Your task to perform on an android device: change keyboard looks Image 0: 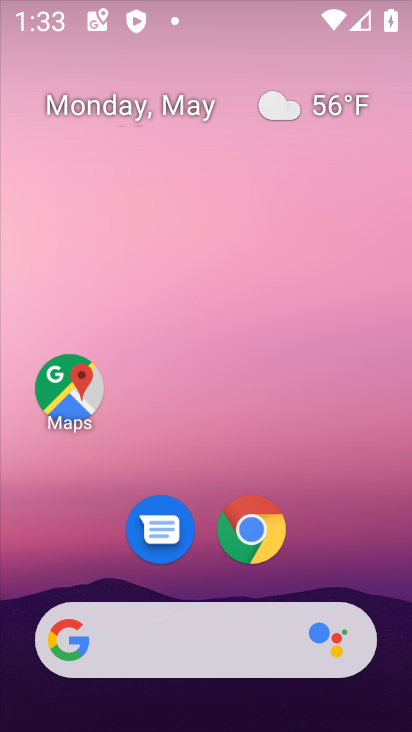
Step 0: drag from (328, 534) to (332, 10)
Your task to perform on an android device: change keyboard looks Image 1: 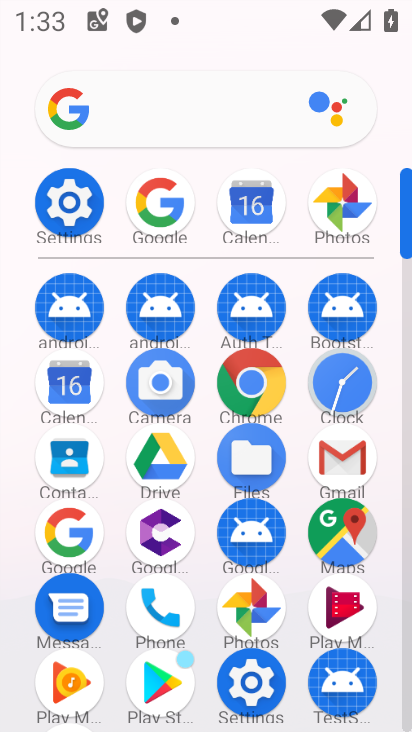
Step 1: click (67, 195)
Your task to perform on an android device: change keyboard looks Image 2: 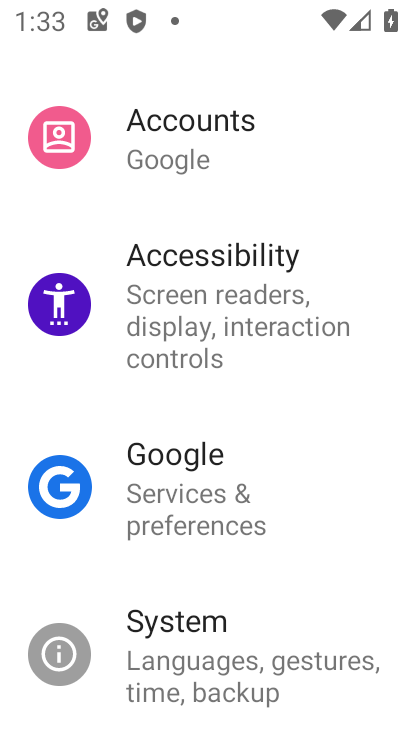
Step 2: click (184, 647)
Your task to perform on an android device: change keyboard looks Image 3: 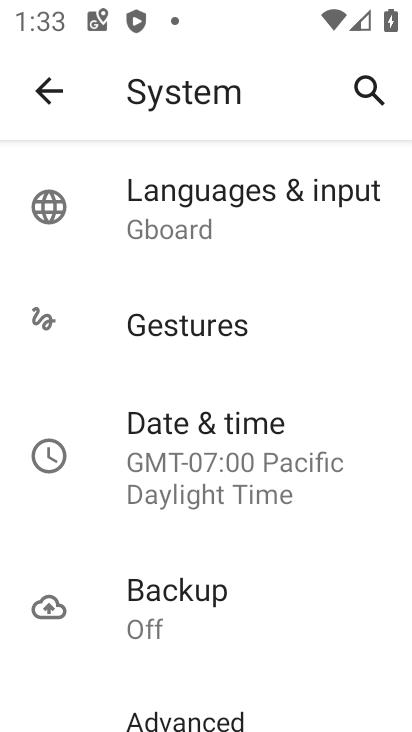
Step 3: drag from (227, 568) to (220, 369)
Your task to perform on an android device: change keyboard looks Image 4: 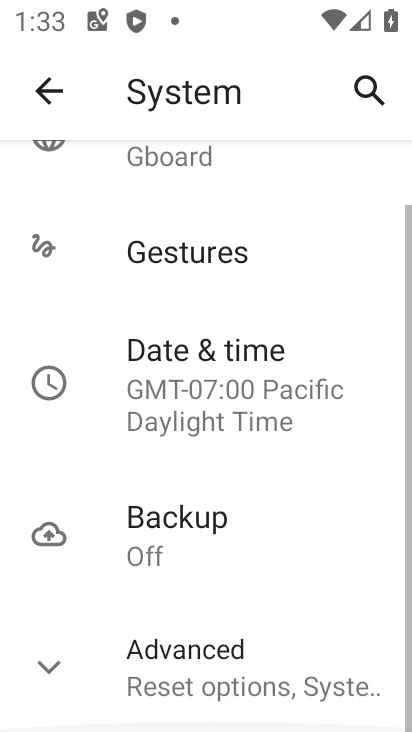
Step 4: drag from (220, 357) to (206, 513)
Your task to perform on an android device: change keyboard looks Image 5: 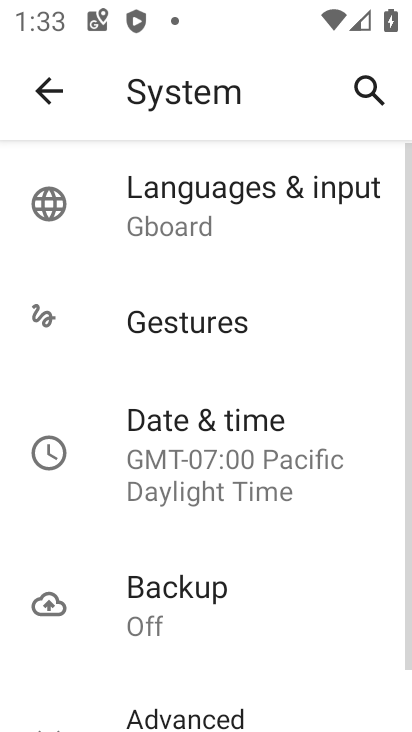
Step 5: click (215, 237)
Your task to perform on an android device: change keyboard looks Image 6: 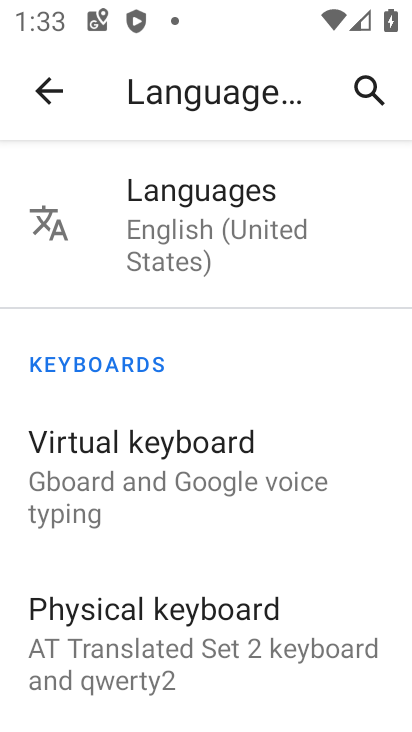
Step 6: click (138, 464)
Your task to perform on an android device: change keyboard looks Image 7: 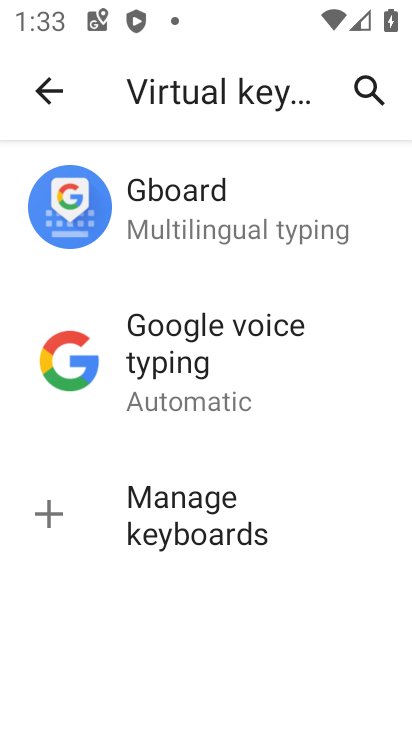
Step 7: click (214, 212)
Your task to perform on an android device: change keyboard looks Image 8: 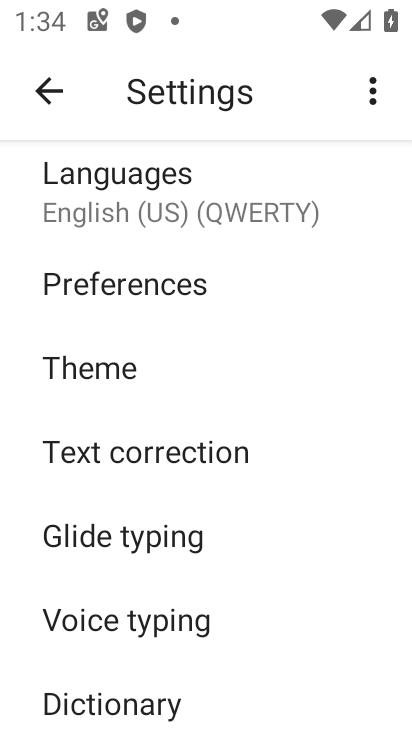
Step 8: click (142, 362)
Your task to perform on an android device: change keyboard looks Image 9: 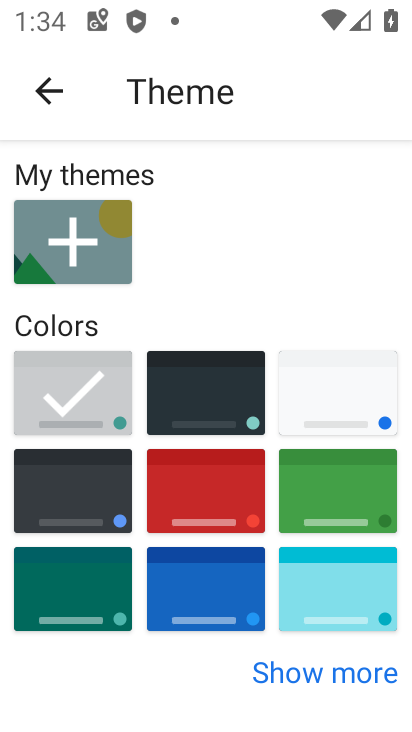
Step 9: click (347, 604)
Your task to perform on an android device: change keyboard looks Image 10: 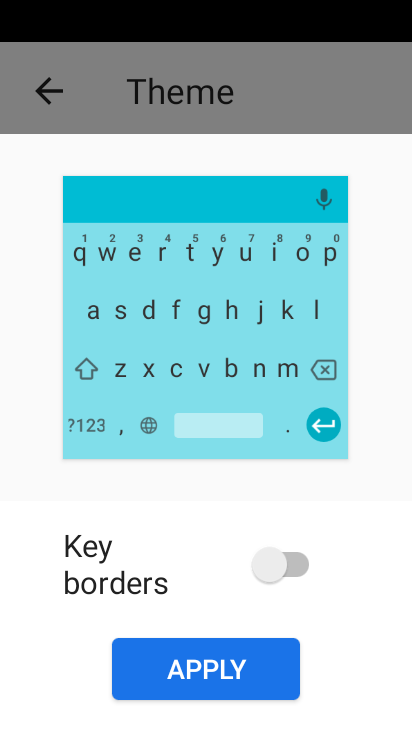
Step 10: click (194, 649)
Your task to perform on an android device: change keyboard looks Image 11: 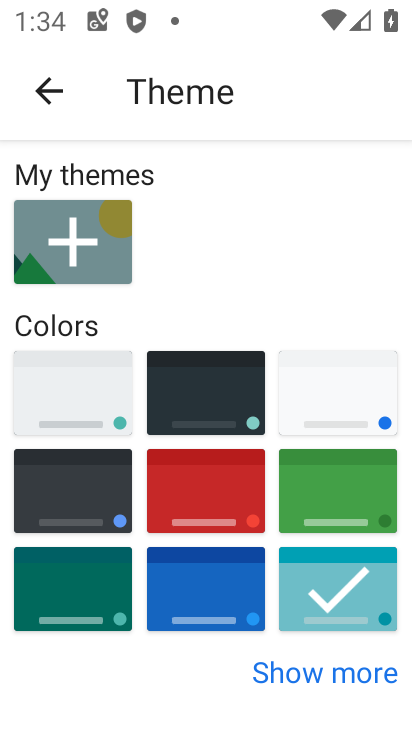
Step 11: task complete